Your task to perform on an android device: See recent photos Image 0: 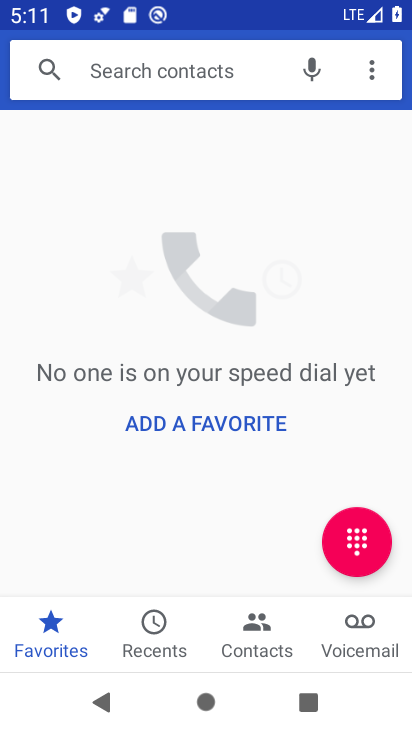
Step 0: press home button
Your task to perform on an android device: See recent photos Image 1: 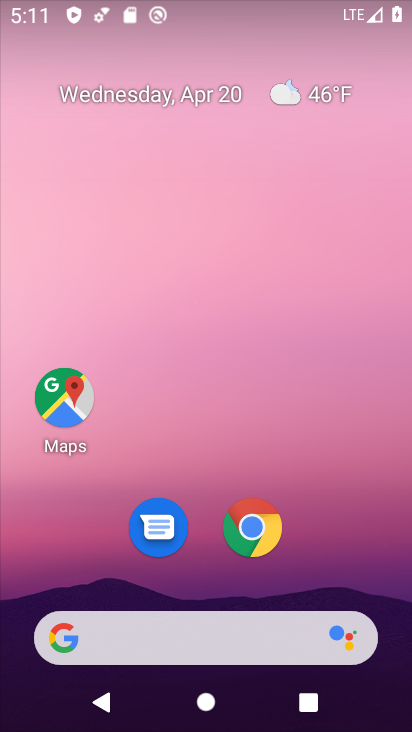
Step 1: drag from (202, 577) to (208, 71)
Your task to perform on an android device: See recent photos Image 2: 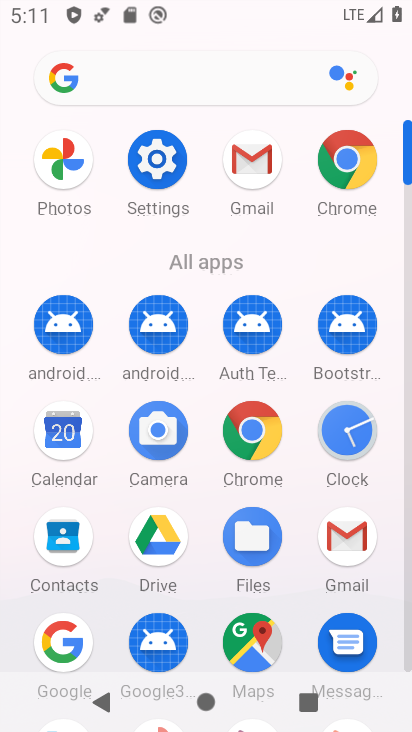
Step 2: click (74, 164)
Your task to perform on an android device: See recent photos Image 3: 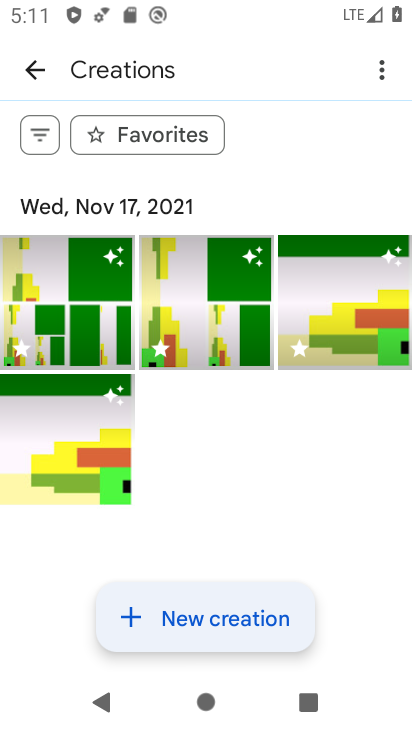
Step 3: click (36, 72)
Your task to perform on an android device: See recent photos Image 4: 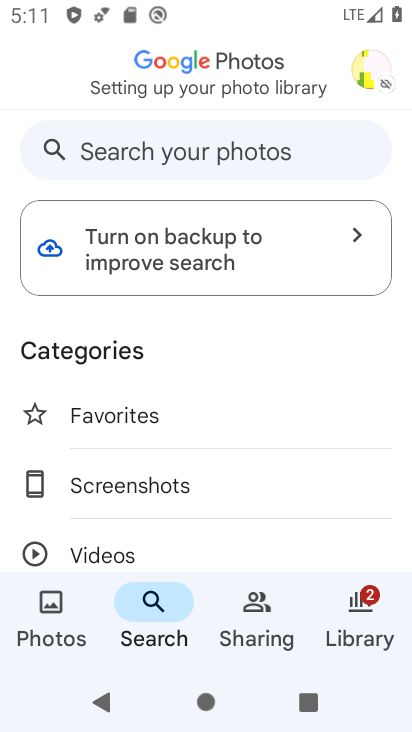
Step 4: click (141, 147)
Your task to perform on an android device: See recent photos Image 5: 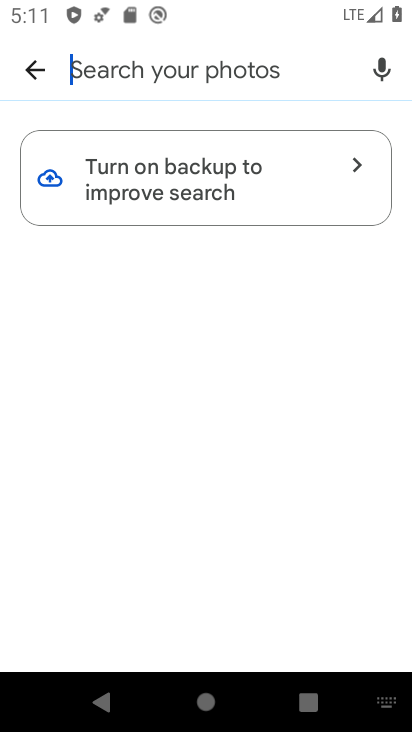
Step 5: type "recent"
Your task to perform on an android device: See recent photos Image 6: 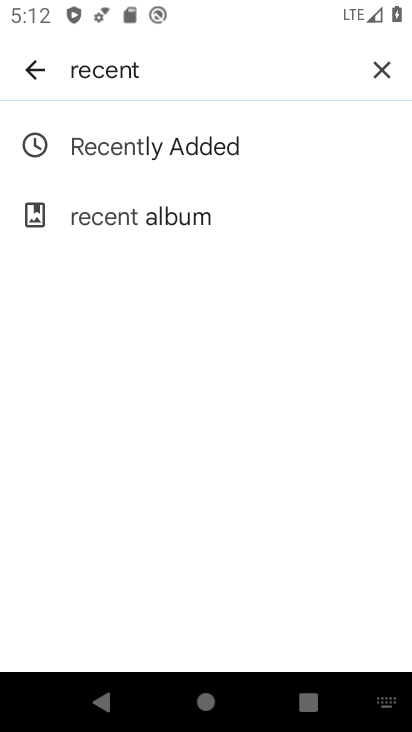
Step 6: click (125, 153)
Your task to perform on an android device: See recent photos Image 7: 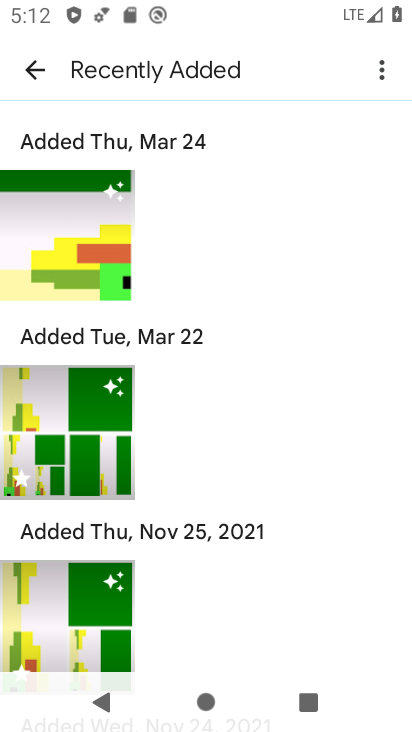
Step 7: task complete